Your task to perform on an android device: Open wifi settings Image 0: 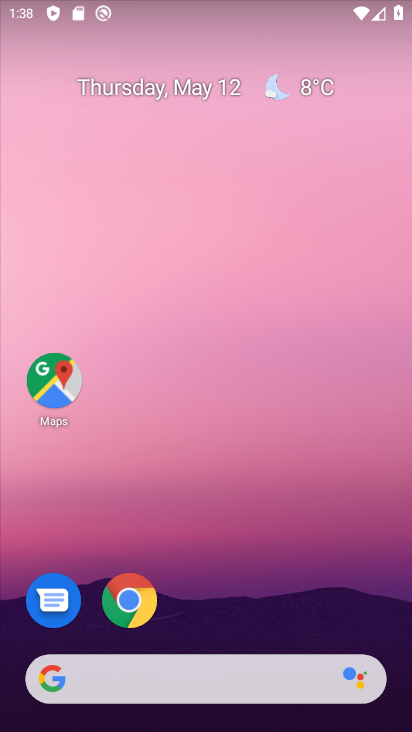
Step 0: drag from (203, 594) to (250, 52)
Your task to perform on an android device: Open wifi settings Image 1: 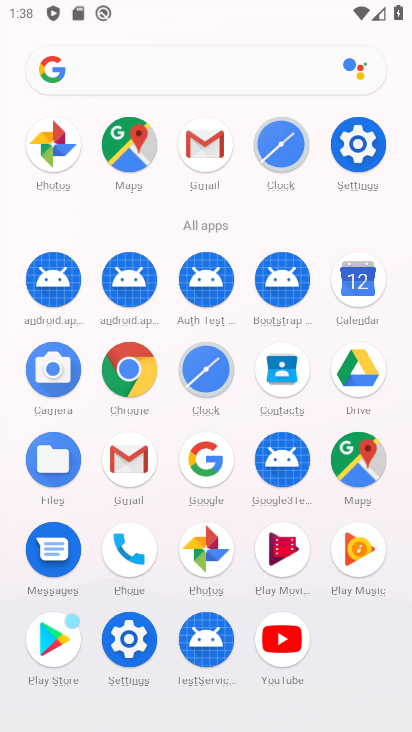
Step 1: click (337, 134)
Your task to perform on an android device: Open wifi settings Image 2: 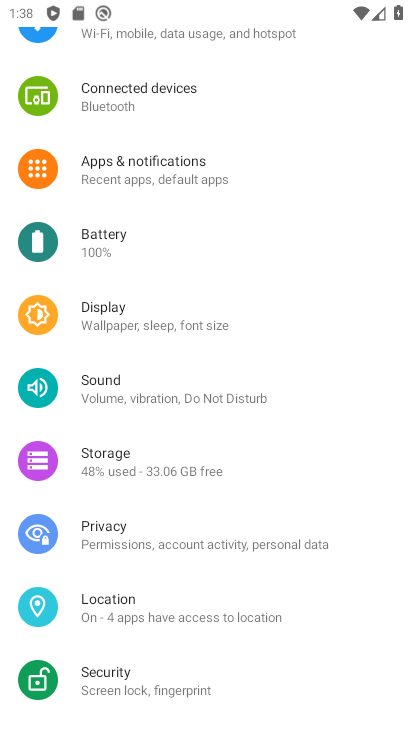
Step 2: drag from (203, 73) to (206, 624)
Your task to perform on an android device: Open wifi settings Image 3: 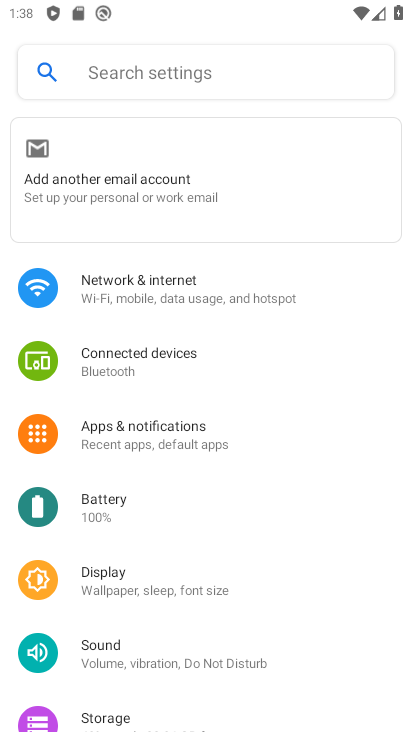
Step 3: click (177, 296)
Your task to perform on an android device: Open wifi settings Image 4: 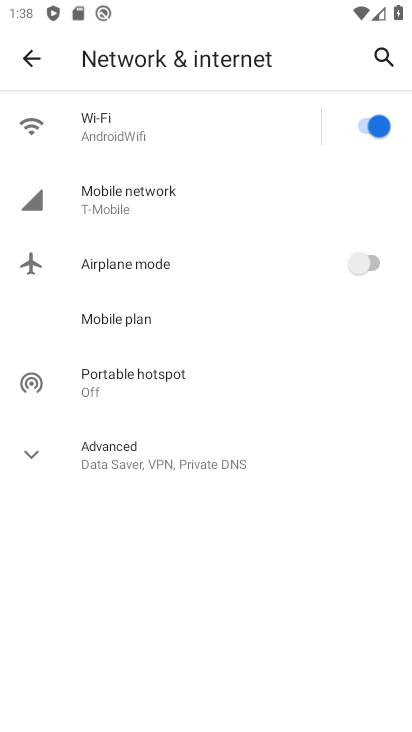
Step 4: click (257, 126)
Your task to perform on an android device: Open wifi settings Image 5: 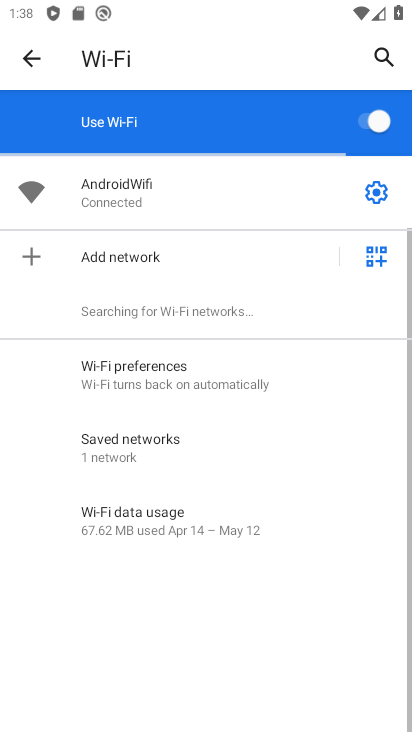
Step 5: task complete